Your task to perform on an android device: Show me productivity apps on the Play Store Image 0: 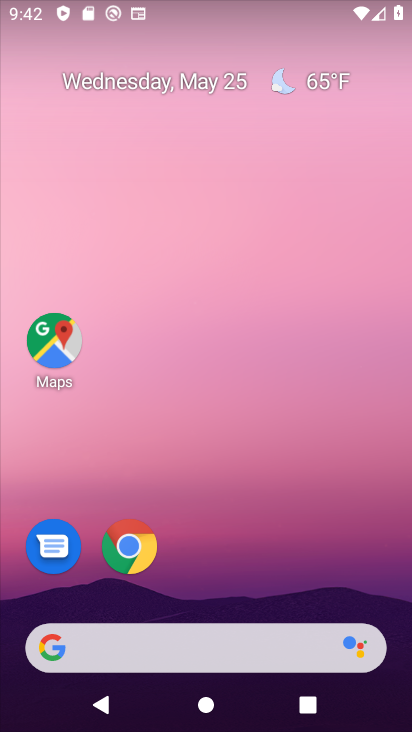
Step 0: drag from (258, 528) to (186, 24)
Your task to perform on an android device: Show me productivity apps on the Play Store Image 1: 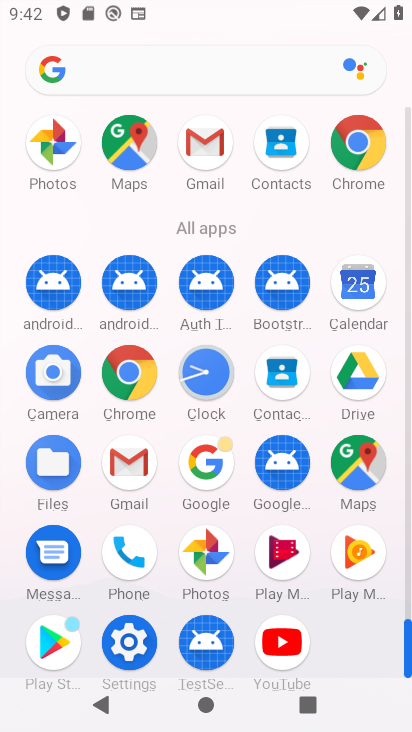
Step 1: drag from (8, 567) to (15, 277)
Your task to perform on an android device: Show me productivity apps on the Play Store Image 2: 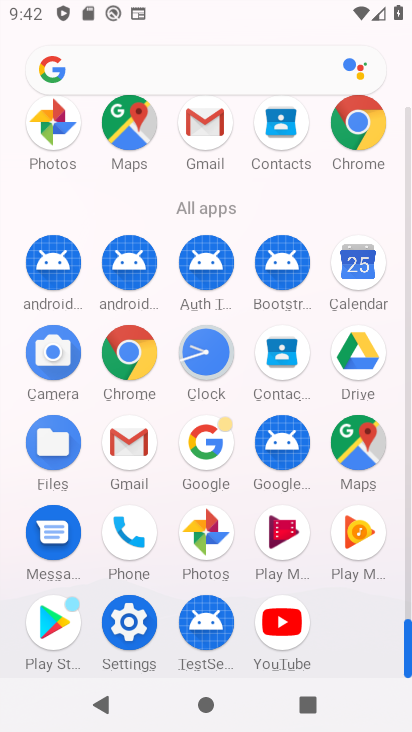
Step 2: click (53, 620)
Your task to perform on an android device: Show me productivity apps on the Play Store Image 3: 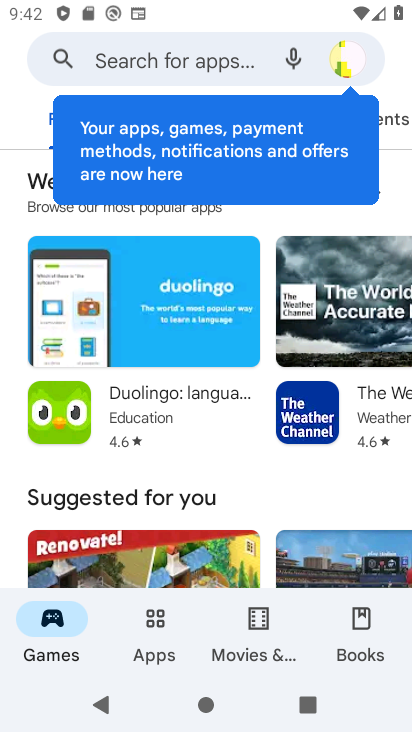
Step 3: click (146, 627)
Your task to perform on an android device: Show me productivity apps on the Play Store Image 4: 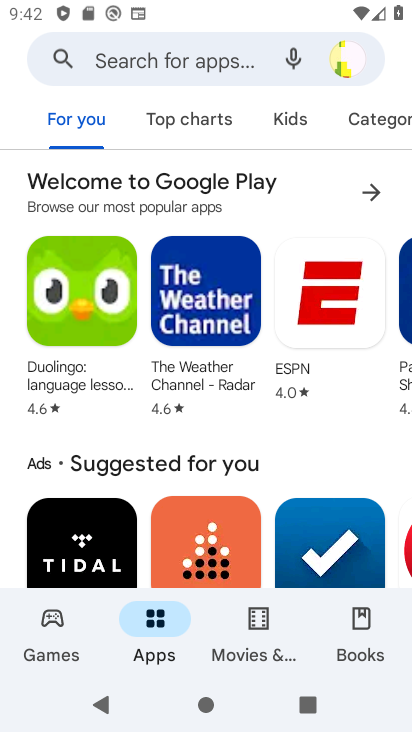
Step 4: click (387, 115)
Your task to perform on an android device: Show me productivity apps on the Play Store Image 5: 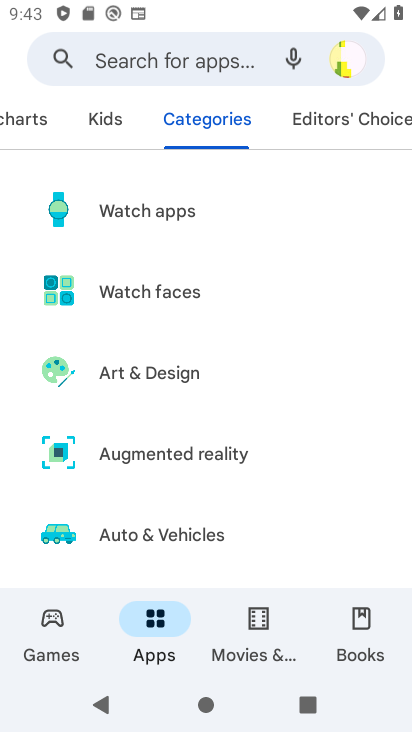
Step 5: drag from (271, 514) to (255, 138)
Your task to perform on an android device: Show me productivity apps on the Play Store Image 6: 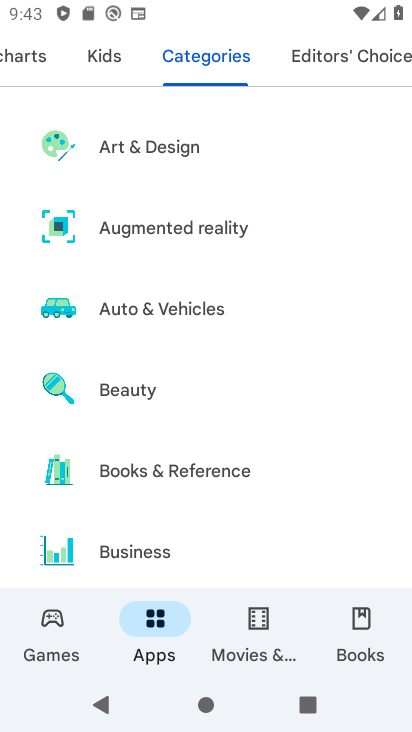
Step 6: drag from (288, 495) to (271, 134)
Your task to perform on an android device: Show me productivity apps on the Play Store Image 7: 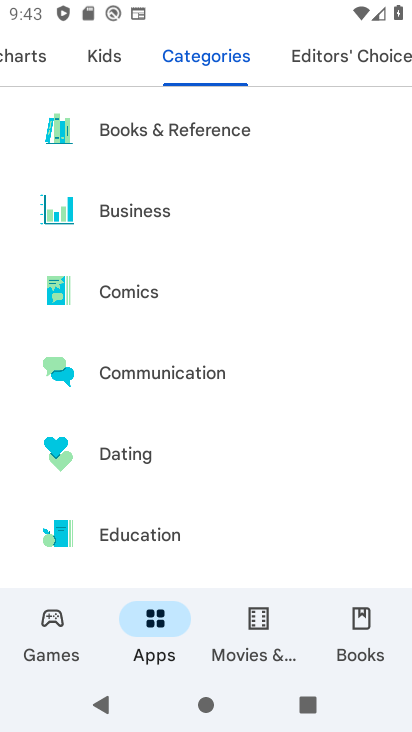
Step 7: drag from (260, 501) to (256, 142)
Your task to perform on an android device: Show me productivity apps on the Play Store Image 8: 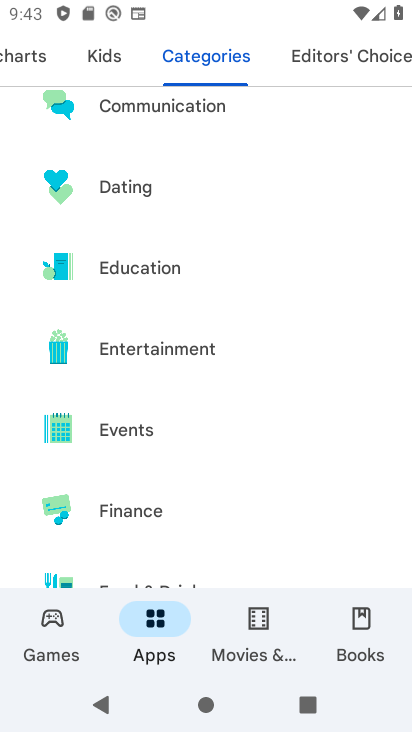
Step 8: drag from (235, 524) to (244, 128)
Your task to perform on an android device: Show me productivity apps on the Play Store Image 9: 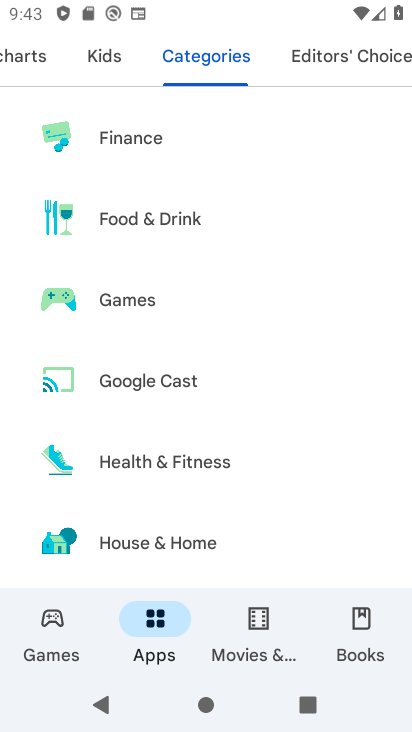
Step 9: drag from (231, 514) to (229, 111)
Your task to perform on an android device: Show me productivity apps on the Play Store Image 10: 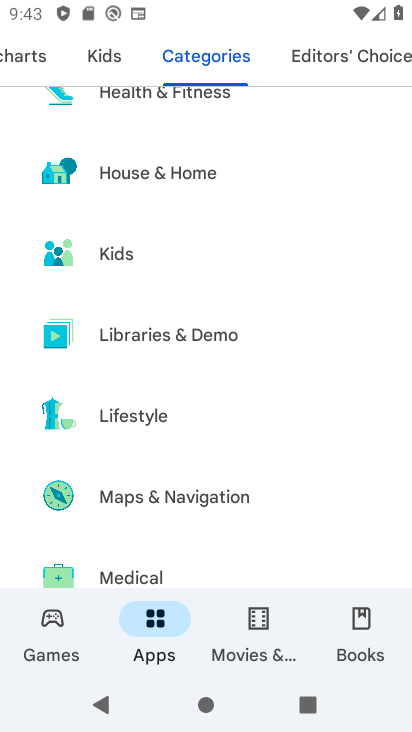
Step 10: drag from (275, 526) to (276, 175)
Your task to perform on an android device: Show me productivity apps on the Play Store Image 11: 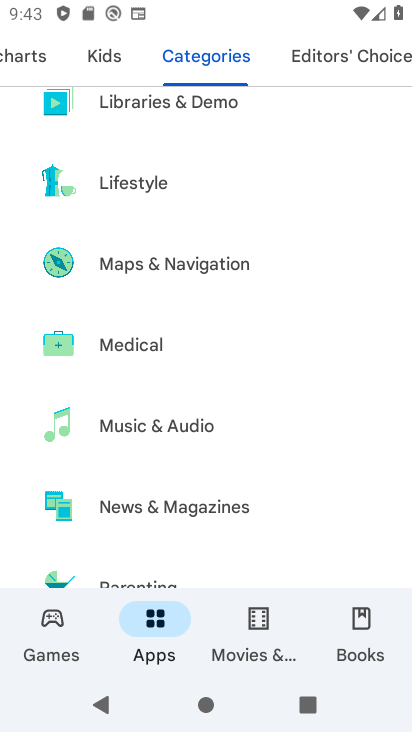
Step 11: drag from (202, 592) to (234, 170)
Your task to perform on an android device: Show me productivity apps on the Play Store Image 12: 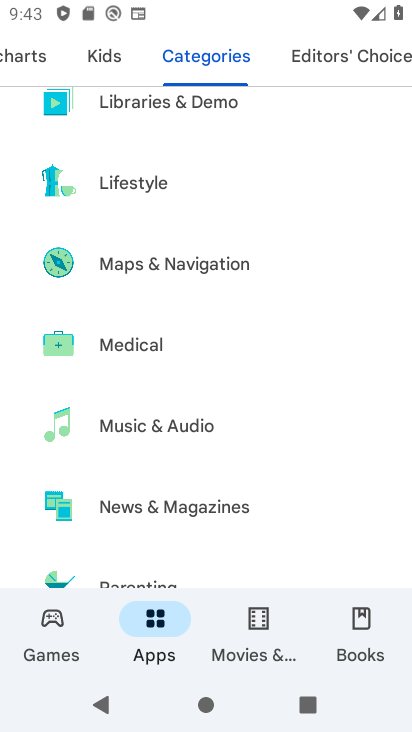
Step 12: drag from (281, 397) to (249, 153)
Your task to perform on an android device: Show me productivity apps on the Play Store Image 13: 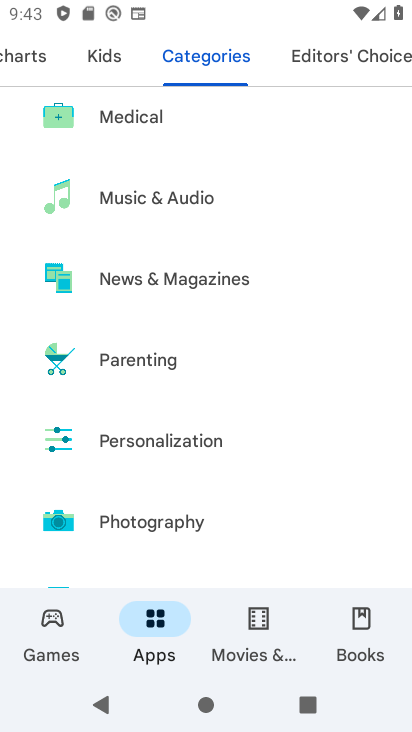
Step 13: drag from (230, 499) to (243, 278)
Your task to perform on an android device: Show me productivity apps on the Play Store Image 14: 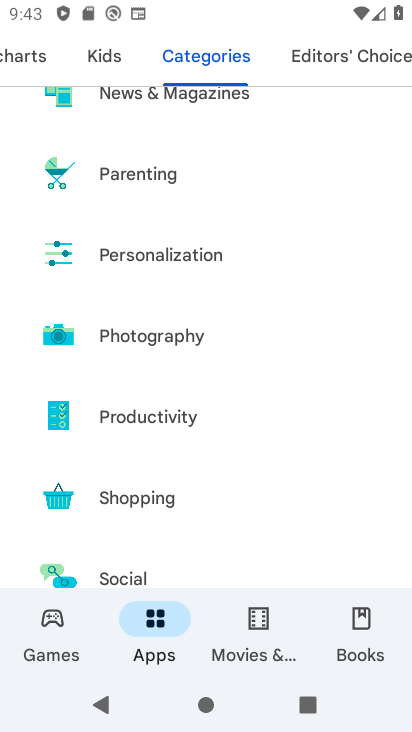
Step 14: click (201, 418)
Your task to perform on an android device: Show me productivity apps on the Play Store Image 15: 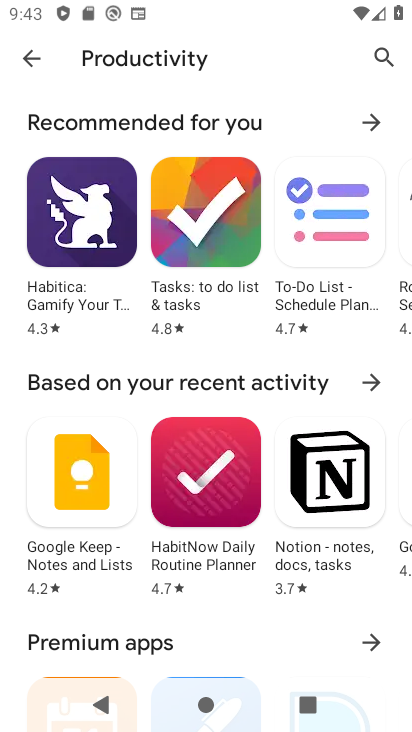
Step 15: task complete